Your task to perform on an android device: find which apps use the phone's location Image 0: 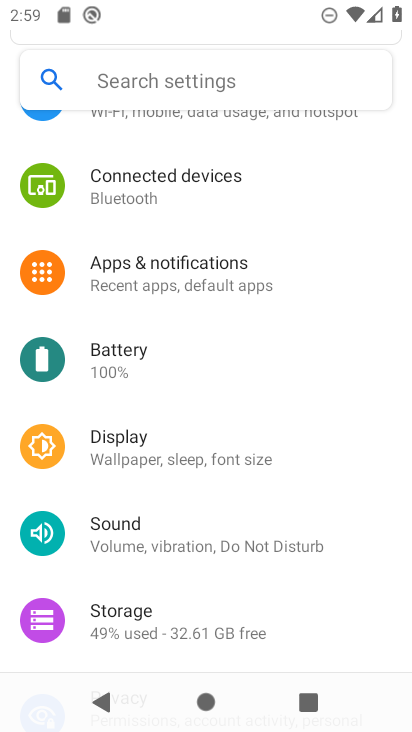
Step 0: drag from (185, 609) to (280, 150)
Your task to perform on an android device: find which apps use the phone's location Image 1: 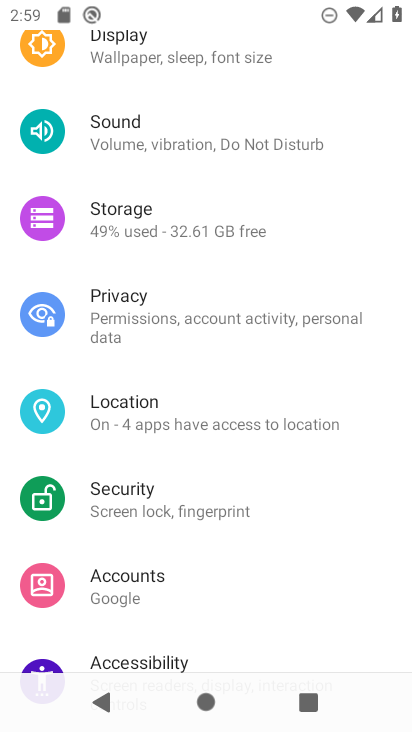
Step 1: click (132, 420)
Your task to perform on an android device: find which apps use the phone's location Image 2: 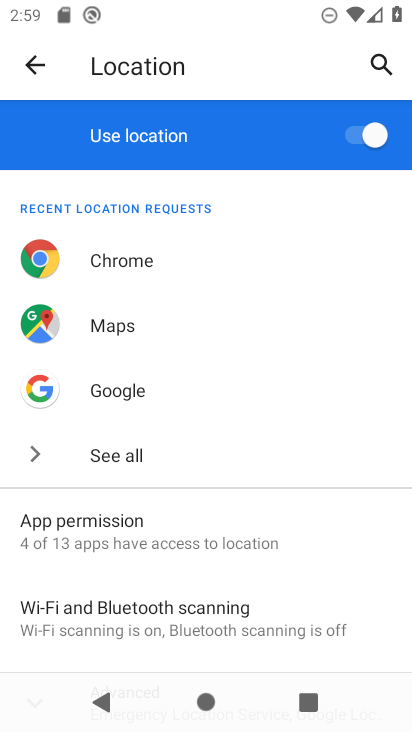
Step 2: drag from (199, 550) to (301, 119)
Your task to perform on an android device: find which apps use the phone's location Image 3: 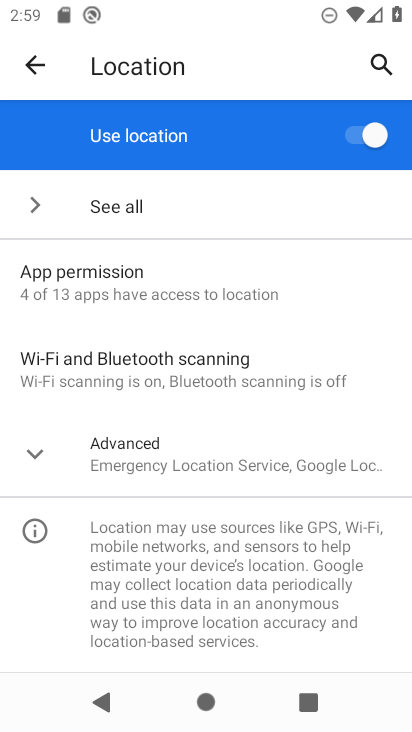
Step 3: click (152, 453)
Your task to perform on an android device: find which apps use the phone's location Image 4: 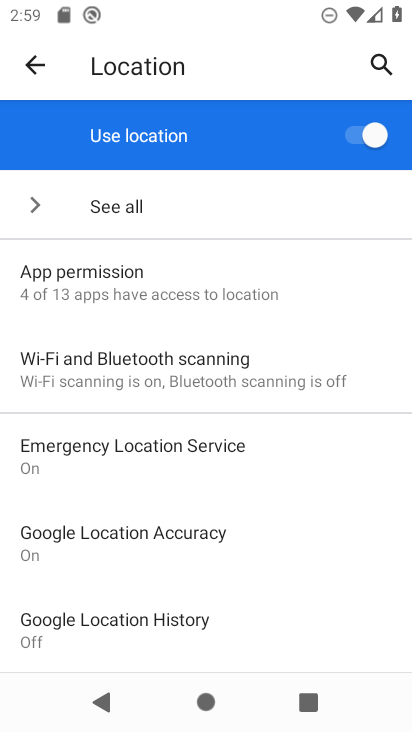
Step 4: click (141, 281)
Your task to perform on an android device: find which apps use the phone's location Image 5: 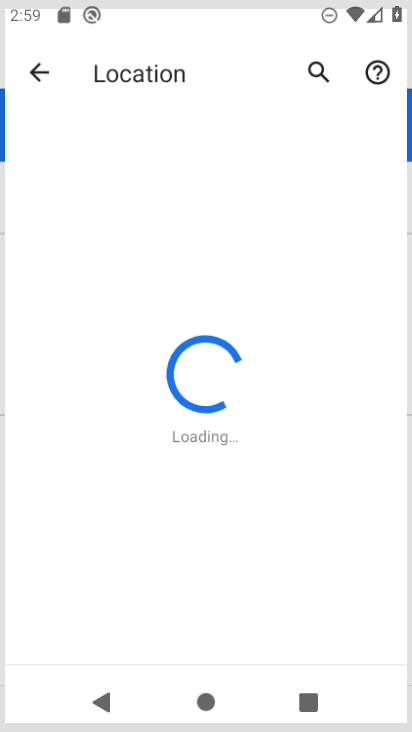
Step 5: task complete